Your task to perform on an android device: Search for vegetarian restaurants on Maps Image 0: 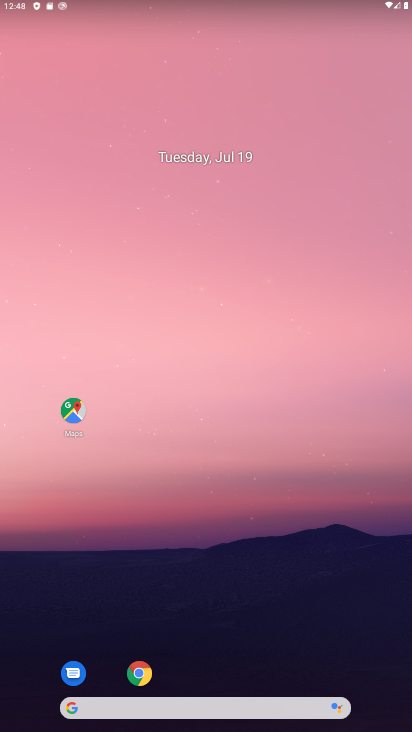
Step 0: press back button
Your task to perform on an android device: Search for vegetarian restaurants on Maps Image 1: 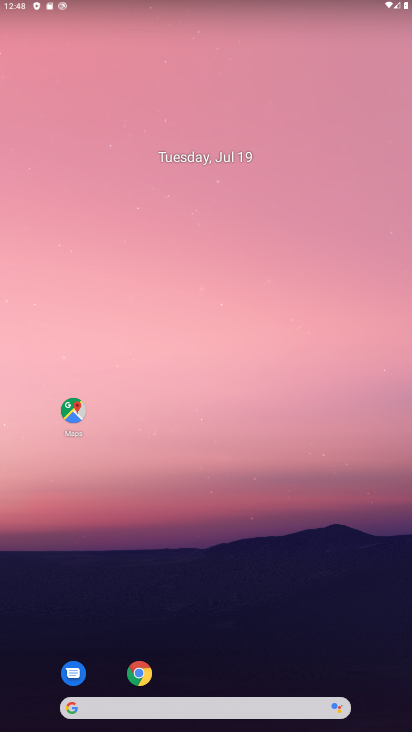
Step 1: drag from (172, 27) to (140, 102)
Your task to perform on an android device: Search for vegetarian restaurants on Maps Image 2: 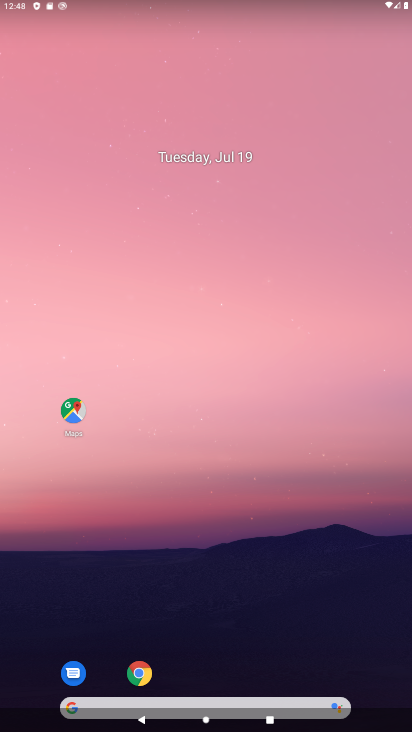
Step 2: drag from (258, 575) to (203, 125)
Your task to perform on an android device: Search for vegetarian restaurants on Maps Image 3: 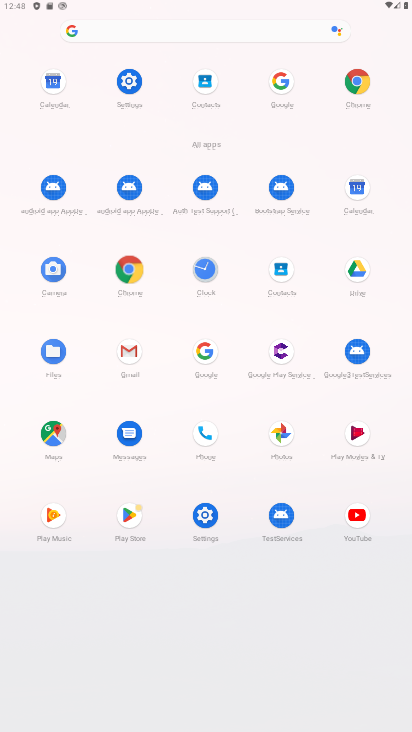
Step 3: click (289, 112)
Your task to perform on an android device: Search for vegetarian restaurants on Maps Image 4: 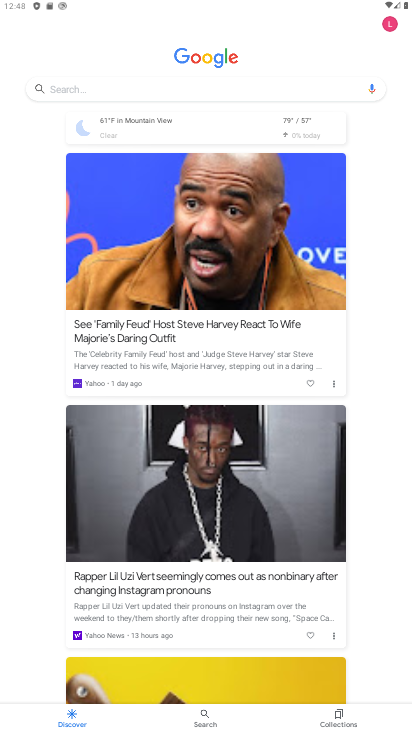
Step 4: press back button
Your task to perform on an android device: Search for vegetarian restaurants on Maps Image 5: 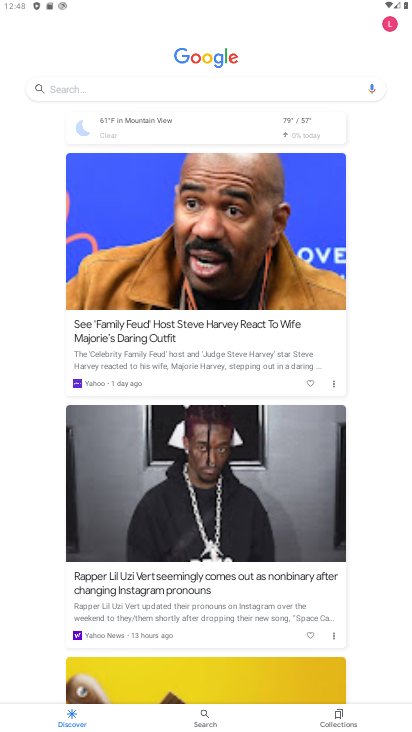
Step 5: press back button
Your task to perform on an android device: Search for vegetarian restaurants on Maps Image 6: 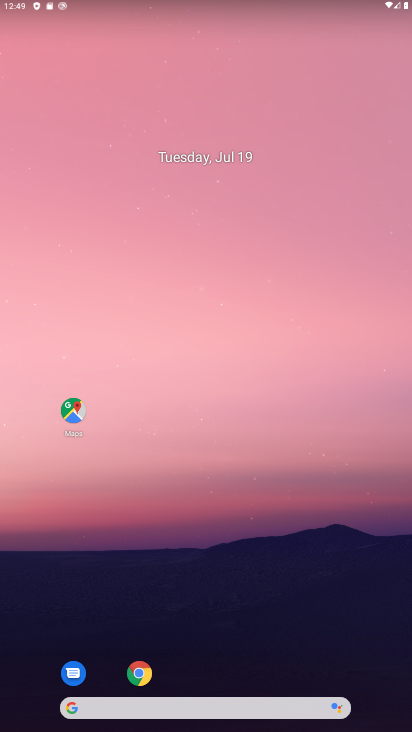
Step 6: drag from (257, 590) to (242, 239)
Your task to perform on an android device: Search for vegetarian restaurants on Maps Image 7: 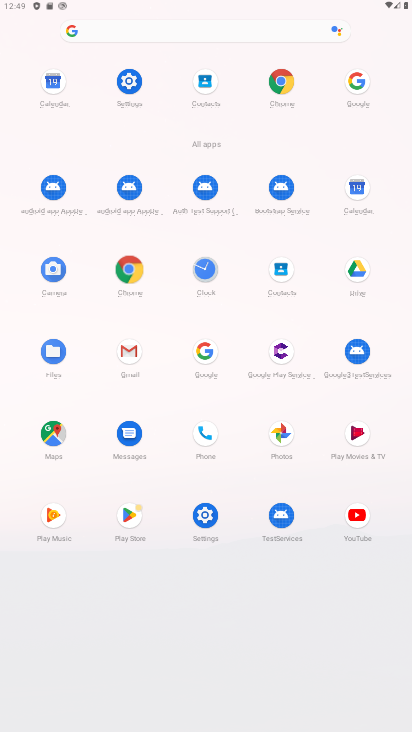
Step 7: click (56, 426)
Your task to perform on an android device: Search for vegetarian restaurants on Maps Image 8: 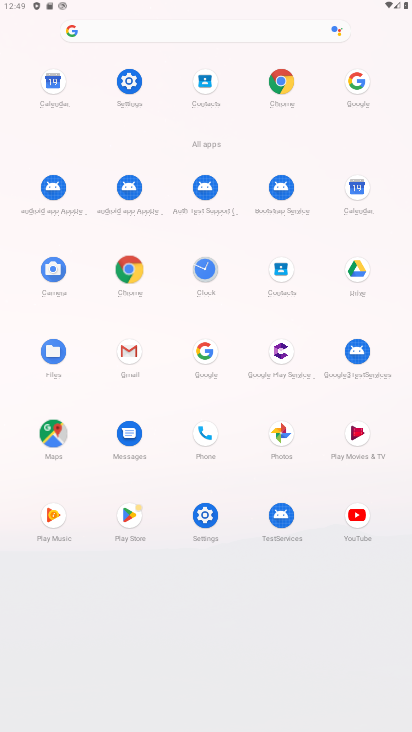
Step 8: click (45, 442)
Your task to perform on an android device: Search for vegetarian restaurants on Maps Image 9: 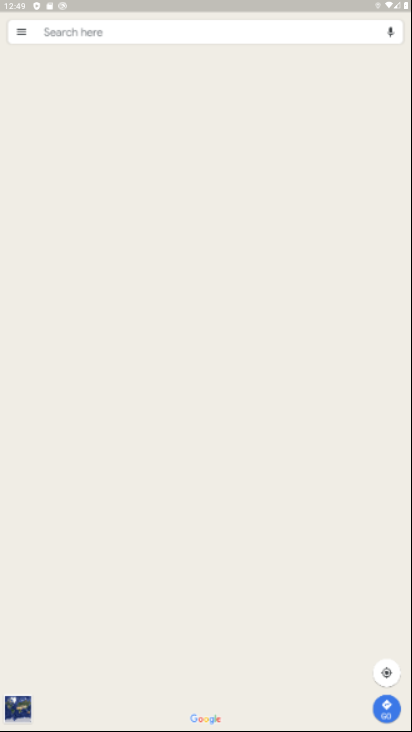
Step 9: click (48, 442)
Your task to perform on an android device: Search for vegetarian restaurants on Maps Image 10: 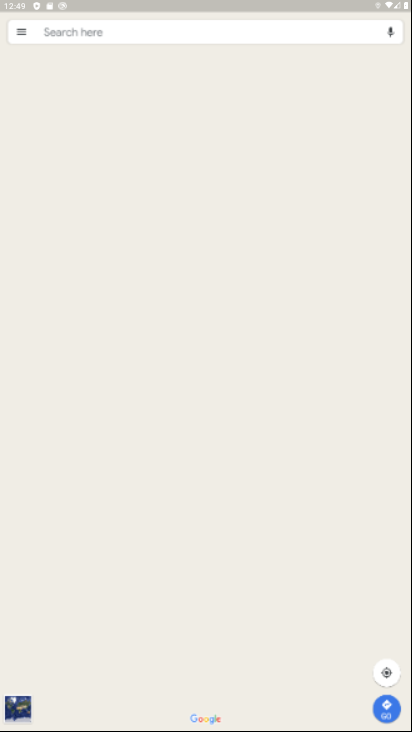
Step 10: click (50, 441)
Your task to perform on an android device: Search for vegetarian restaurants on Maps Image 11: 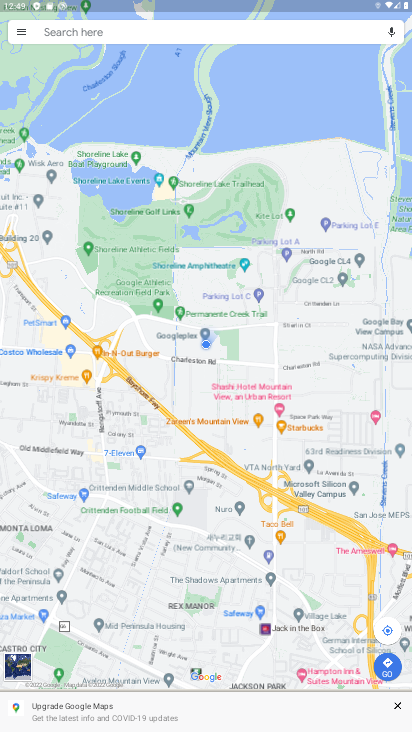
Step 11: click (53, 29)
Your task to perform on an android device: Search for vegetarian restaurants on Maps Image 12: 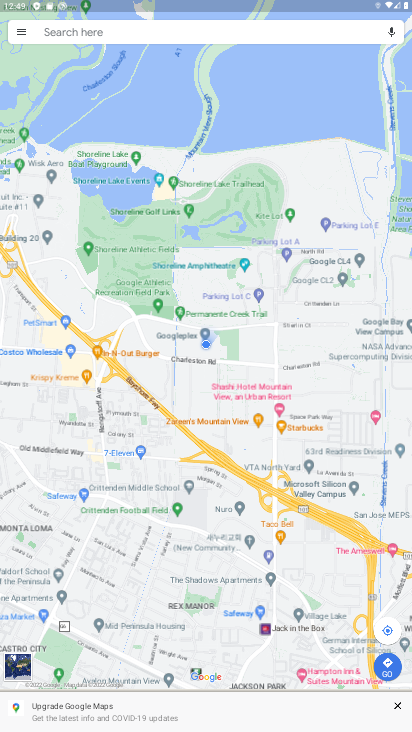
Step 12: click (52, 29)
Your task to perform on an android device: Search for vegetarian restaurants on Maps Image 13: 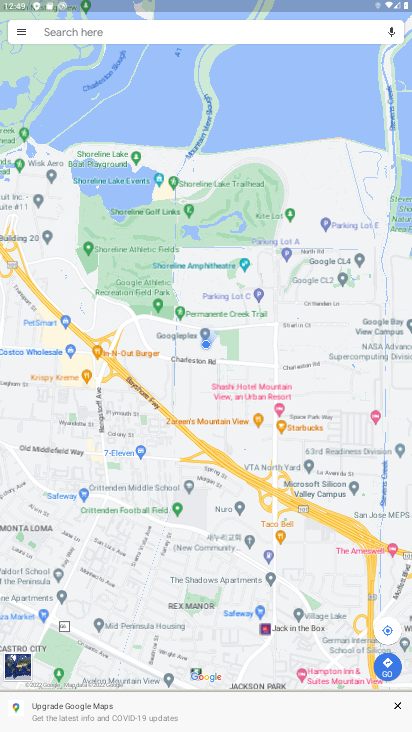
Step 13: click (52, 29)
Your task to perform on an android device: Search for vegetarian restaurants on Maps Image 14: 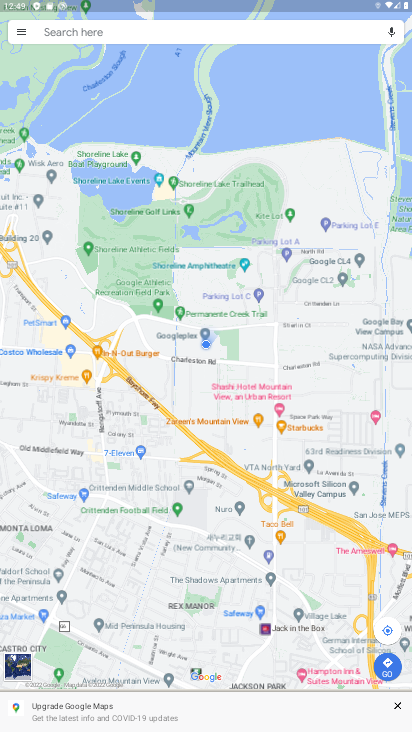
Step 14: click (55, 35)
Your task to perform on an android device: Search for vegetarian restaurants on Maps Image 15: 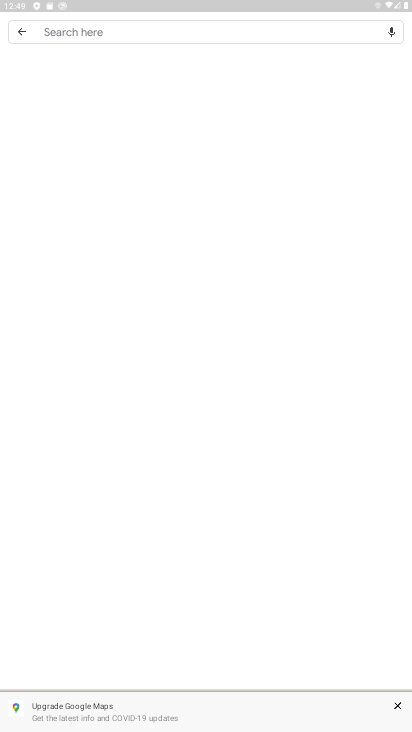
Step 15: click (56, 35)
Your task to perform on an android device: Search for vegetarian restaurants on Maps Image 16: 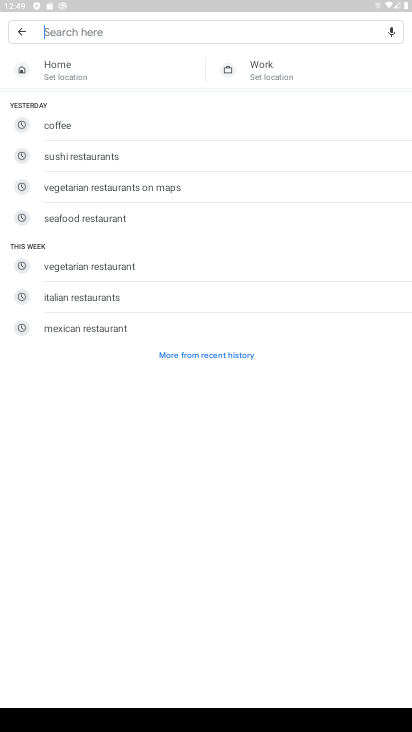
Step 16: click (89, 264)
Your task to perform on an android device: Search for vegetarian restaurants on Maps Image 17: 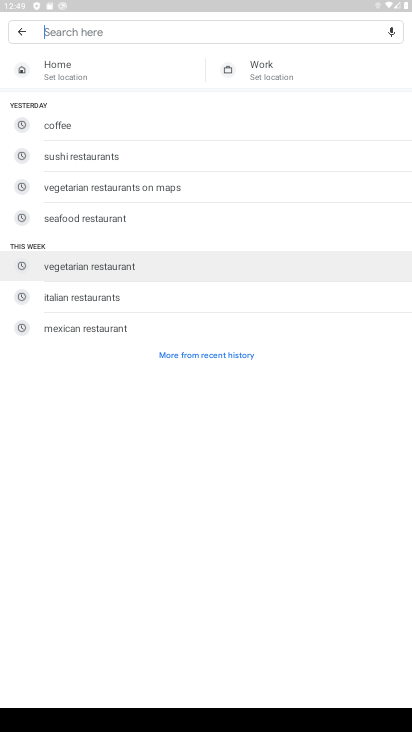
Step 17: click (91, 264)
Your task to perform on an android device: Search for vegetarian restaurants on Maps Image 18: 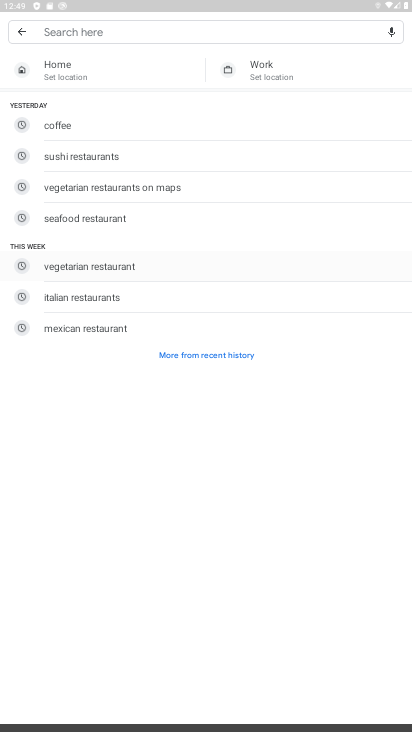
Step 18: click (92, 268)
Your task to perform on an android device: Search for vegetarian restaurants on Maps Image 19: 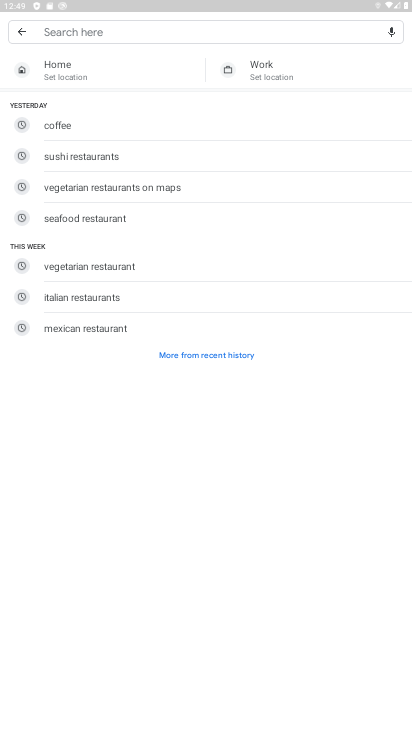
Step 19: click (91, 269)
Your task to perform on an android device: Search for vegetarian restaurants on Maps Image 20: 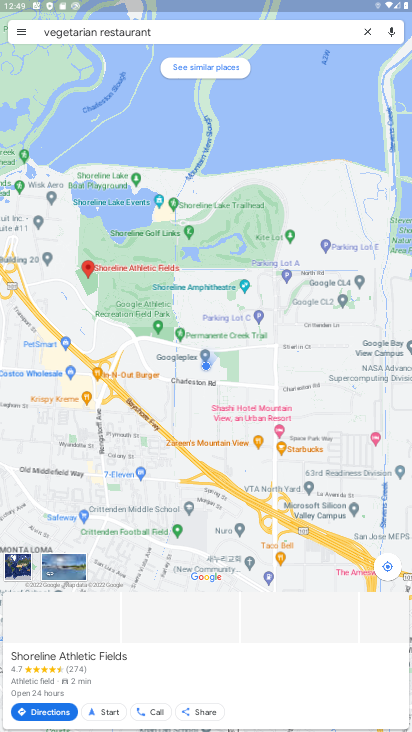
Step 20: task complete